Your task to perform on an android device: Open accessibility settings Image 0: 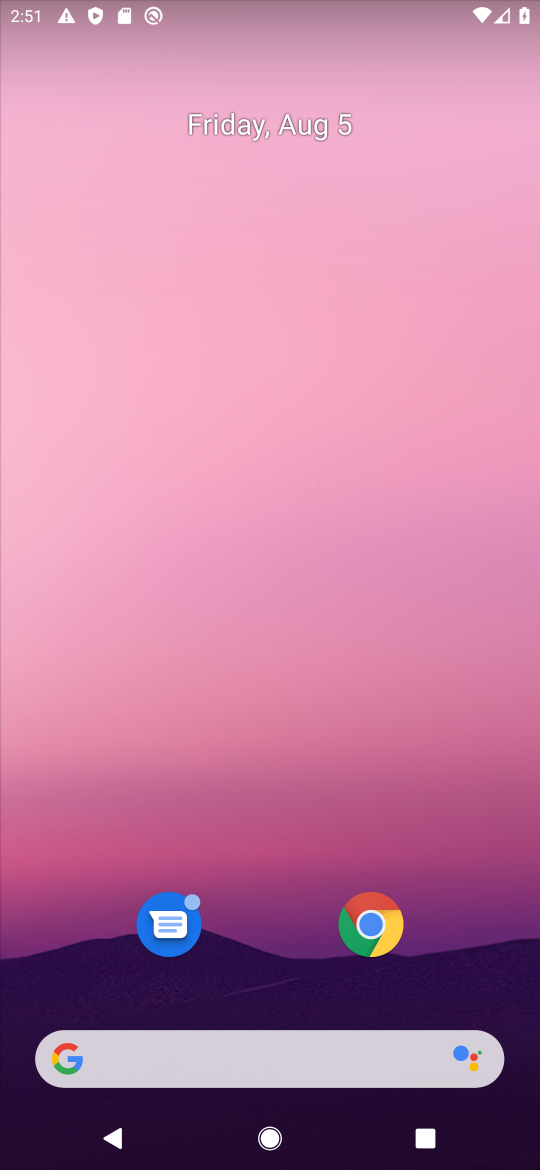
Step 0: drag from (473, 959) to (422, 52)
Your task to perform on an android device: Open accessibility settings Image 1: 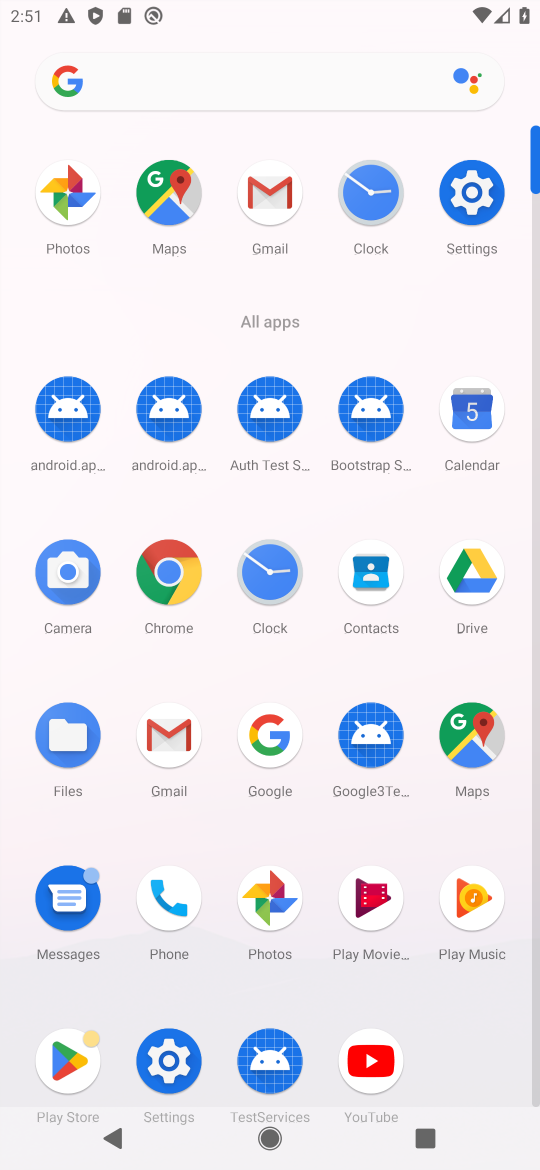
Step 1: click (164, 1060)
Your task to perform on an android device: Open accessibility settings Image 2: 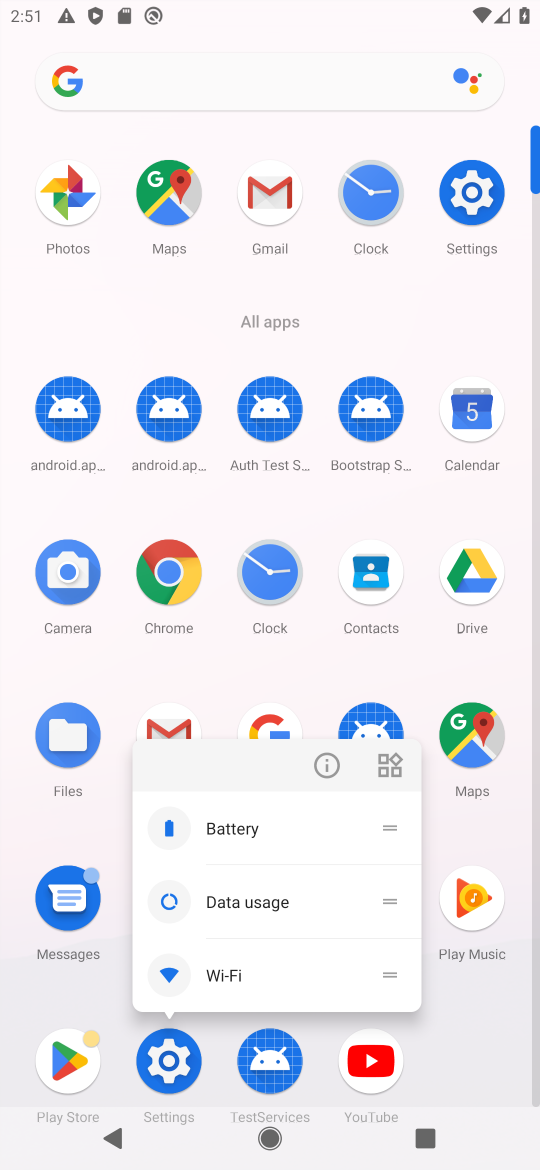
Step 2: click (164, 1060)
Your task to perform on an android device: Open accessibility settings Image 3: 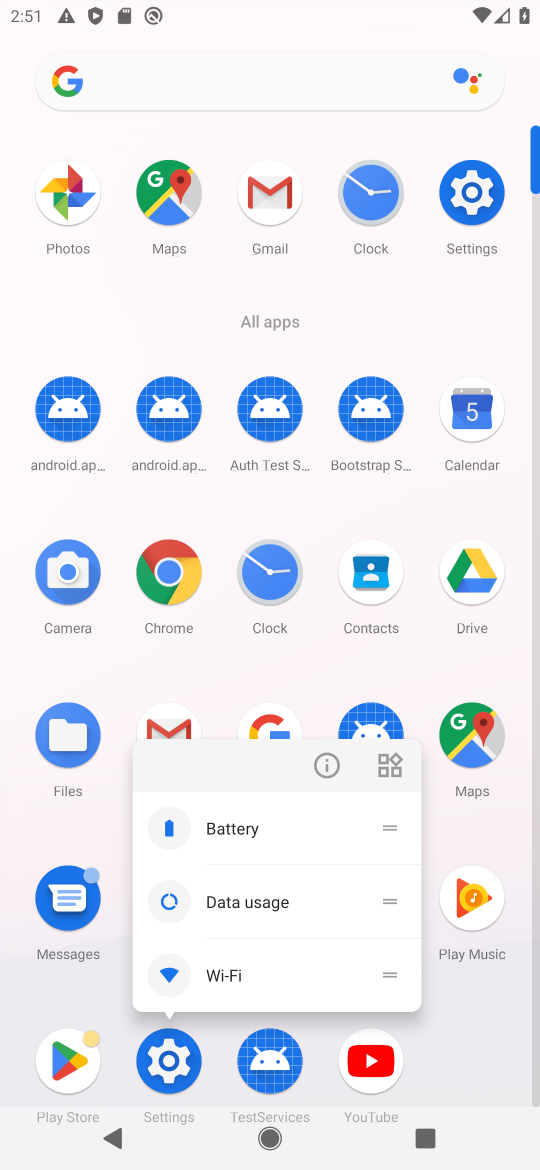
Step 3: click (169, 1056)
Your task to perform on an android device: Open accessibility settings Image 4: 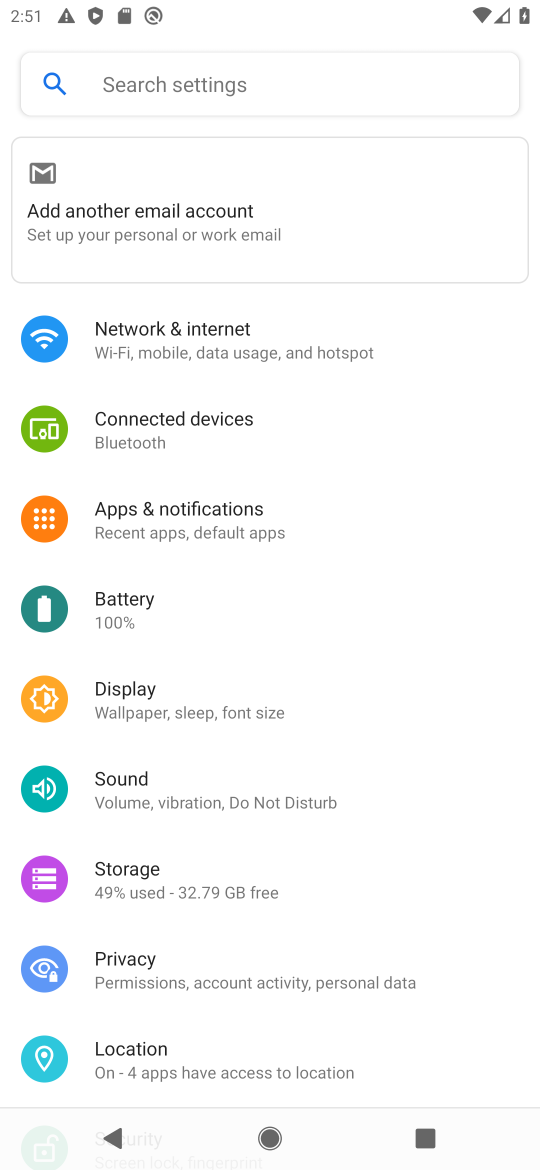
Step 4: drag from (356, 799) to (382, 334)
Your task to perform on an android device: Open accessibility settings Image 5: 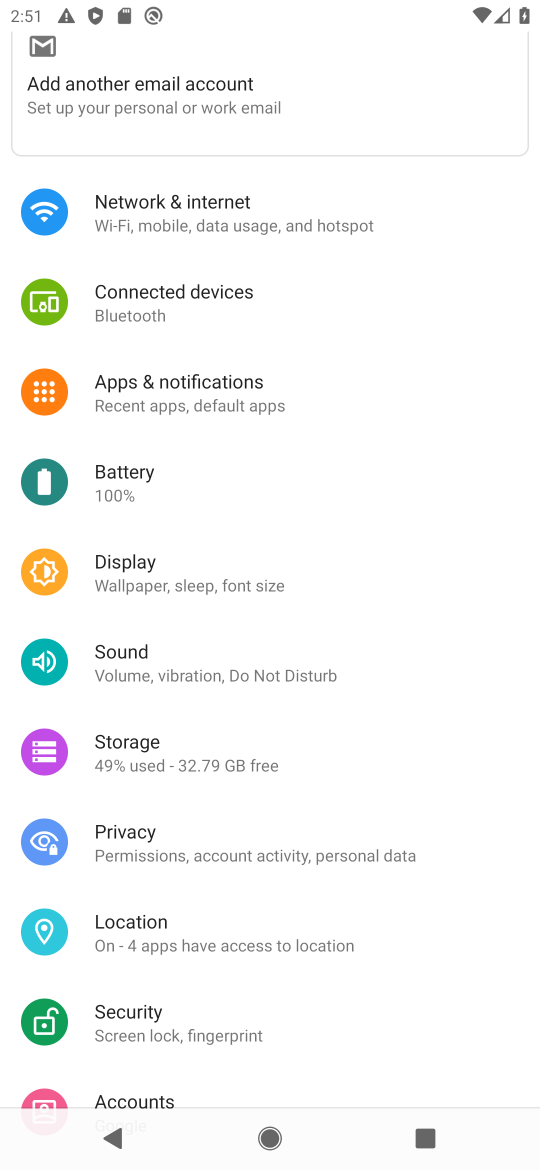
Step 5: drag from (329, 851) to (347, 400)
Your task to perform on an android device: Open accessibility settings Image 6: 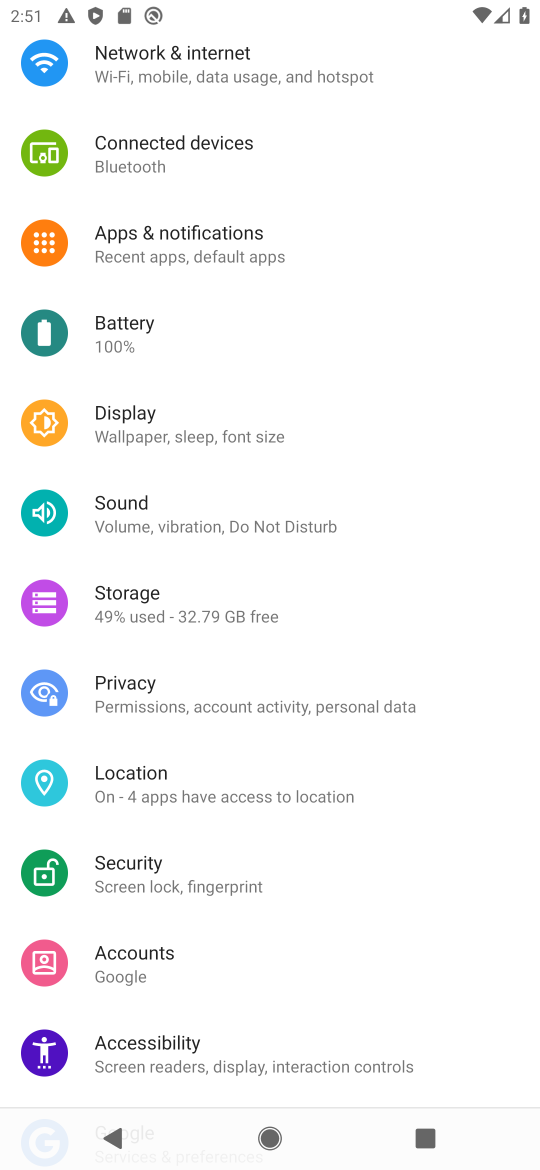
Step 6: click (131, 1052)
Your task to perform on an android device: Open accessibility settings Image 7: 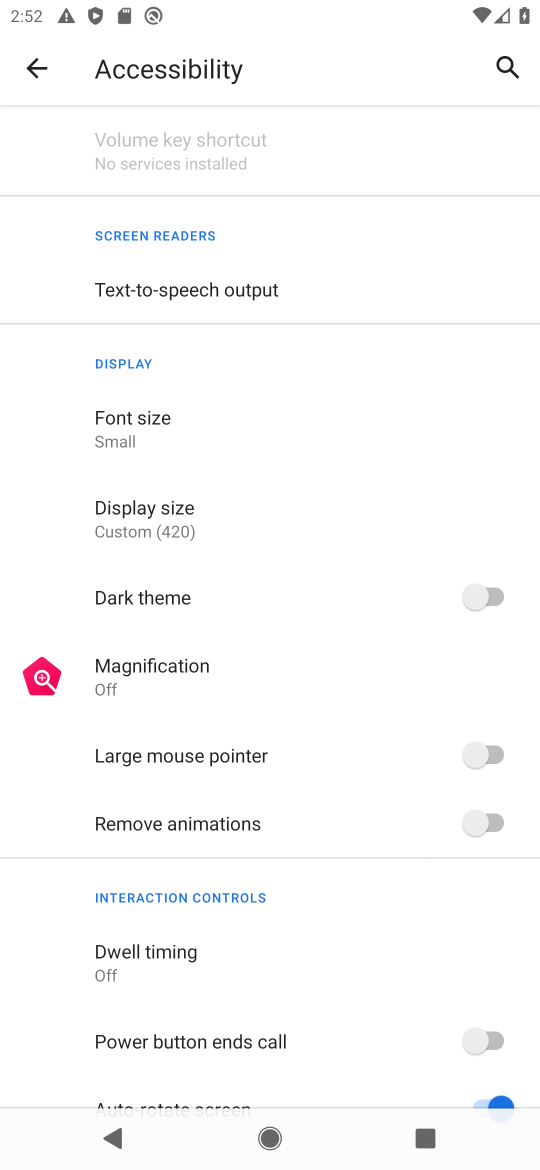
Step 7: task complete